Your task to perform on an android device: Go to Yahoo.com Image 0: 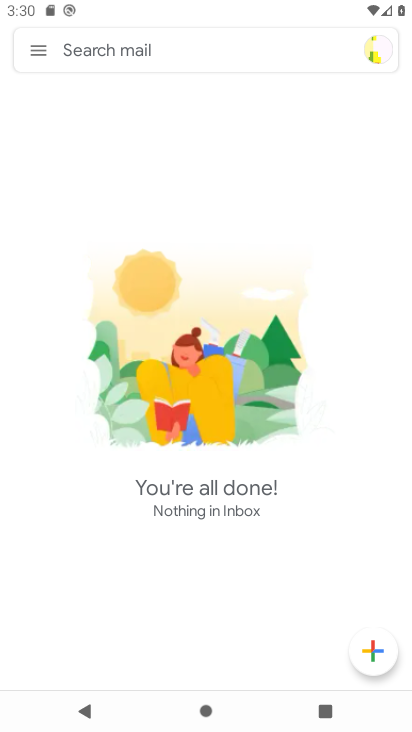
Step 0: press home button
Your task to perform on an android device: Go to Yahoo.com Image 1: 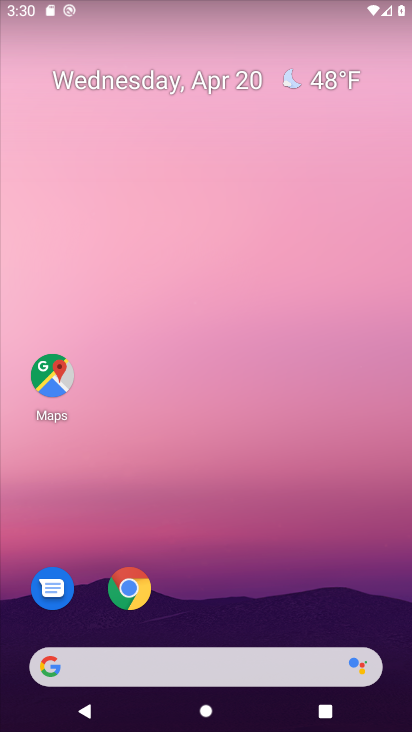
Step 1: drag from (316, 527) to (296, 173)
Your task to perform on an android device: Go to Yahoo.com Image 2: 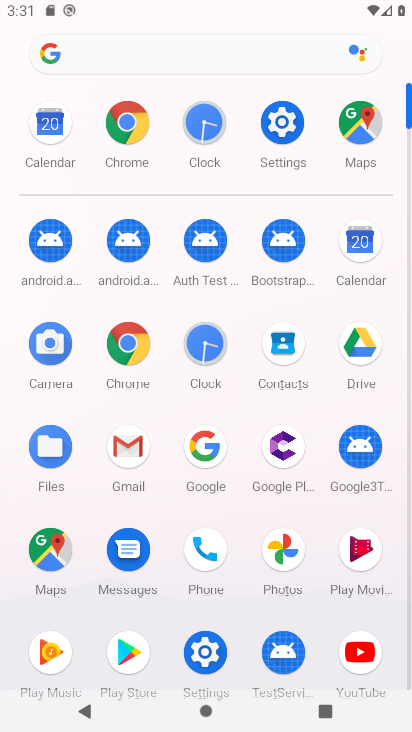
Step 2: click (134, 353)
Your task to perform on an android device: Go to Yahoo.com Image 3: 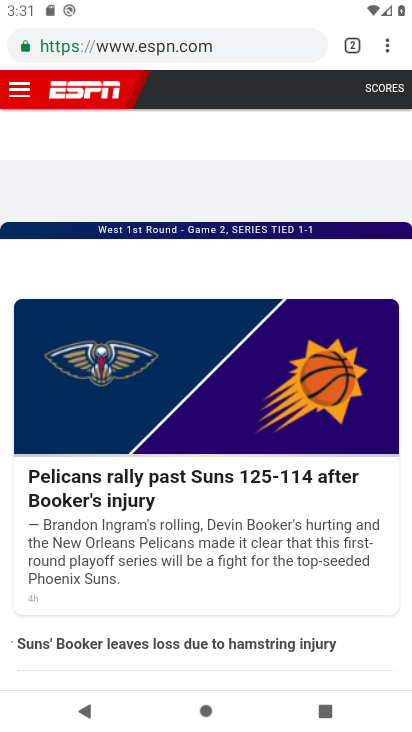
Step 3: press back button
Your task to perform on an android device: Go to Yahoo.com Image 4: 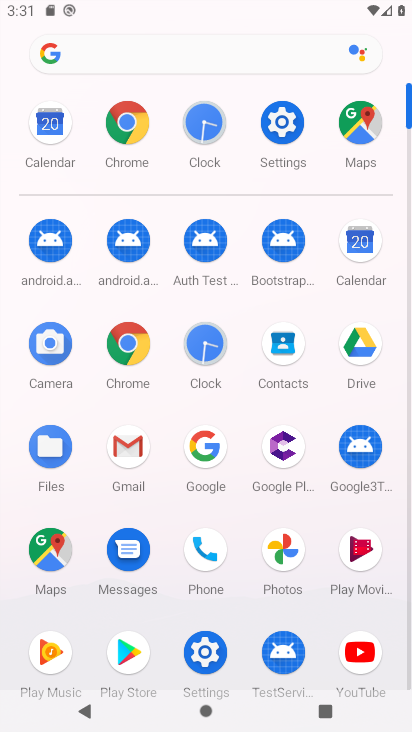
Step 4: click (122, 355)
Your task to perform on an android device: Go to Yahoo.com Image 5: 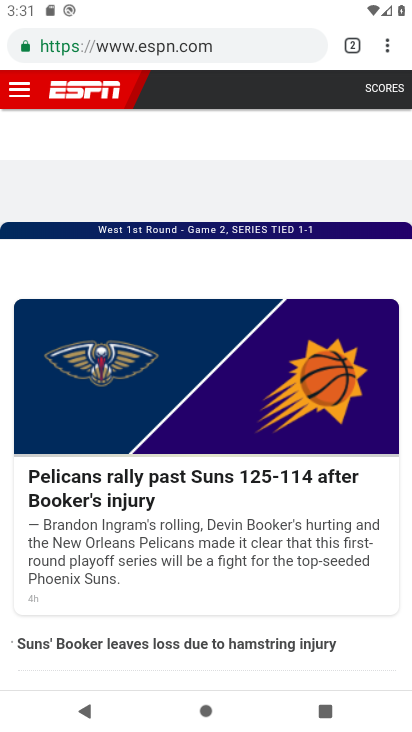
Step 5: click (218, 55)
Your task to perform on an android device: Go to Yahoo.com Image 6: 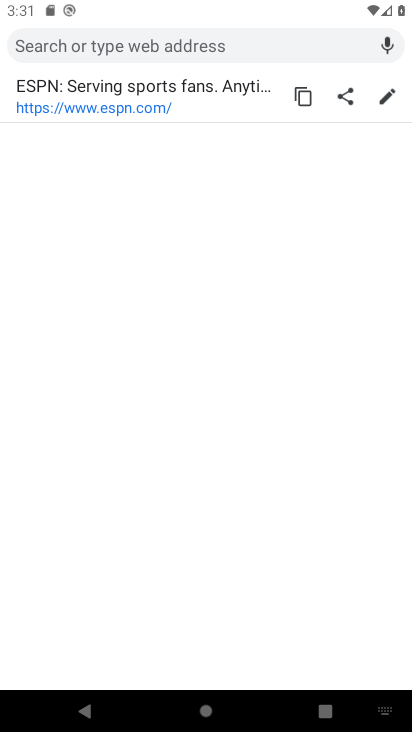
Step 6: type "yahoo.com"
Your task to perform on an android device: Go to Yahoo.com Image 7: 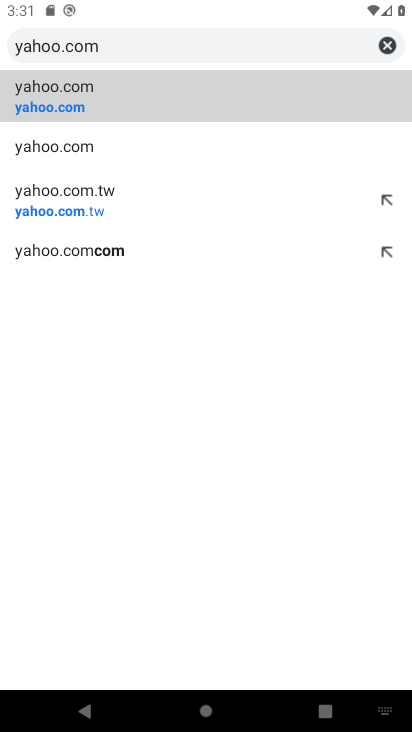
Step 7: click (63, 140)
Your task to perform on an android device: Go to Yahoo.com Image 8: 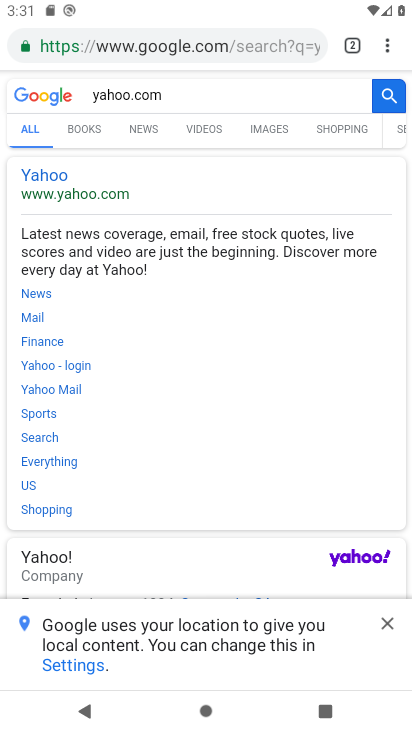
Step 8: task complete